Your task to perform on an android device: Open the Play Movies app and select the watchlist tab. Image 0: 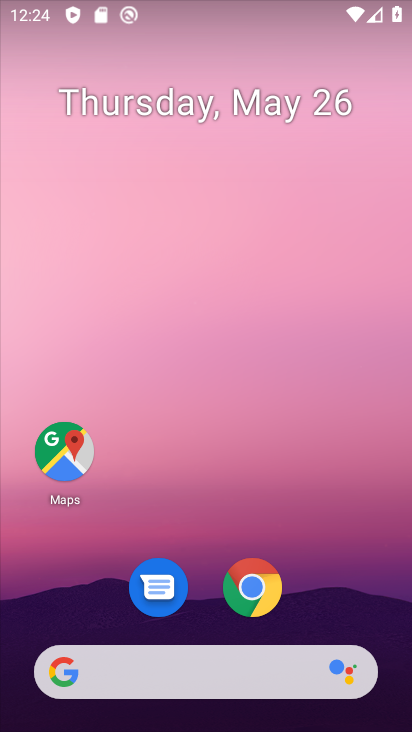
Step 0: drag from (357, 614) to (367, 342)
Your task to perform on an android device: Open the Play Movies app and select the watchlist tab. Image 1: 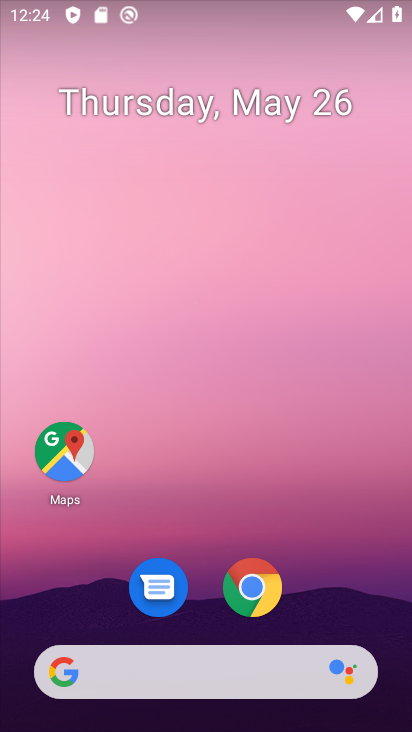
Step 1: drag from (361, 613) to (384, 250)
Your task to perform on an android device: Open the Play Movies app and select the watchlist tab. Image 2: 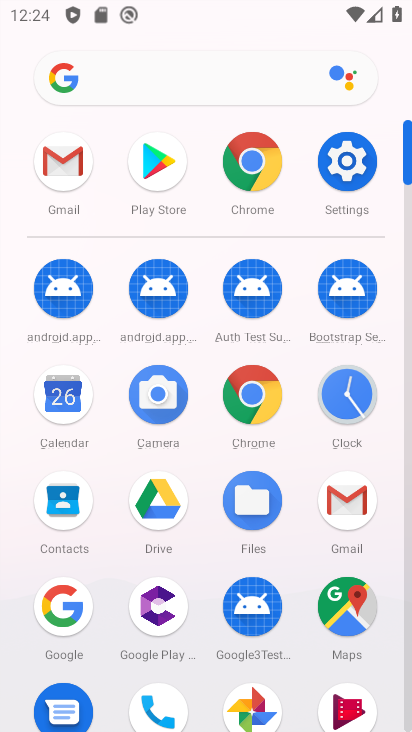
Step 2: drag from (385, 543) to (378, 247)
Your task to perform on an android device: Open the Play Movies app and select the watchlist tab. Image 3: 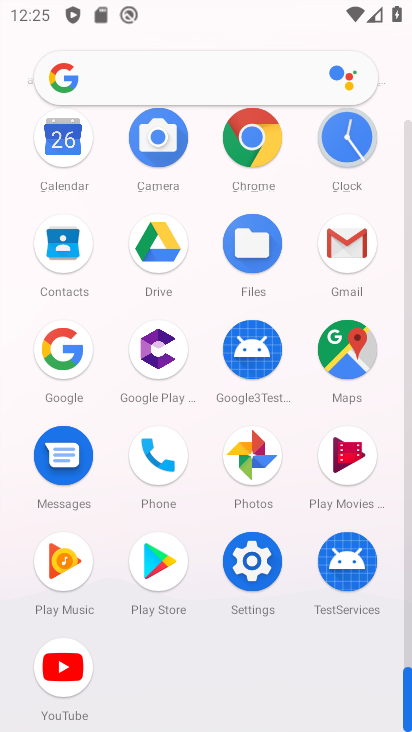
Step 3: click (366, 463)
Your task to perform on an android device: Open the Play Movies app and select the watchlist tab. Image 4: 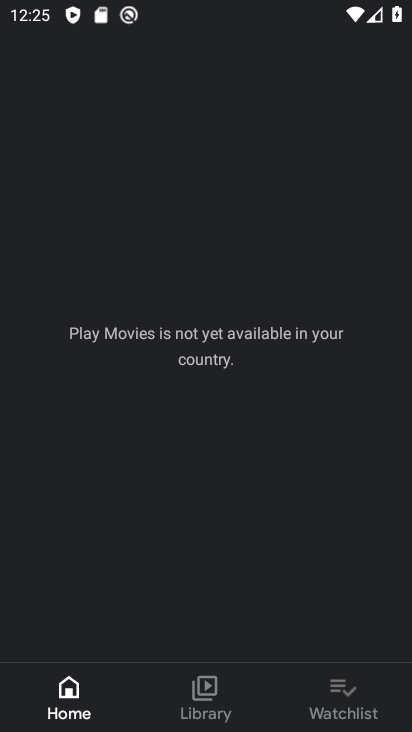
Step 4: click (343, 690)
Your task to perform on an android device: Open the Play Movies app and select the watchlist tab. Image 5: 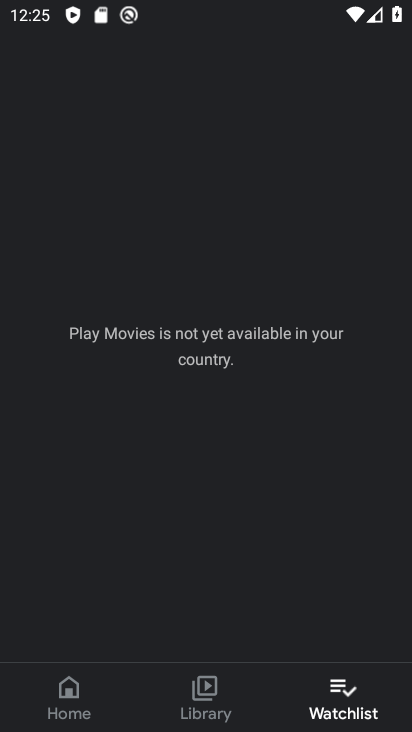
Step 5: task complete